Your task to perform on an android device: Open my contact list Image 0: 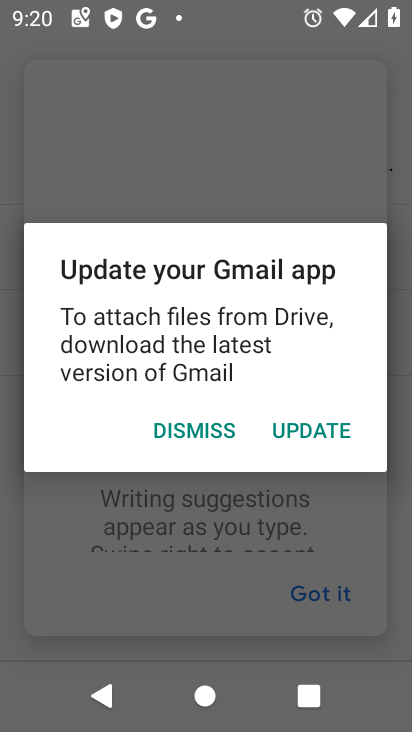
Step 0: press home button
Your task to perform on an android device: Open my contact list Image 1: 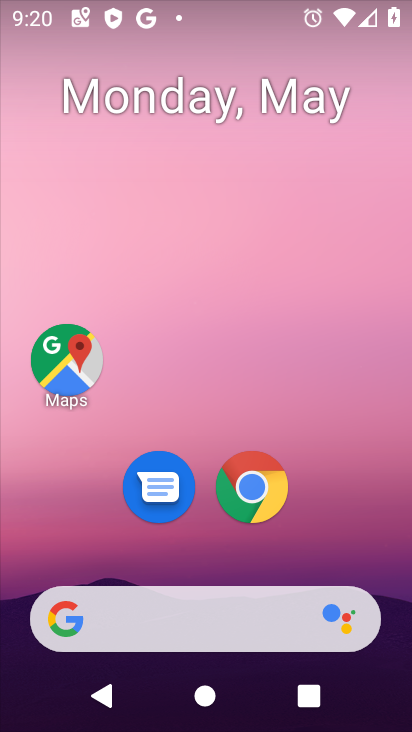
Step 1: drag from (183, 576) to (346, 57)
Your task to perform on an android device: Open my contact list Image 2: 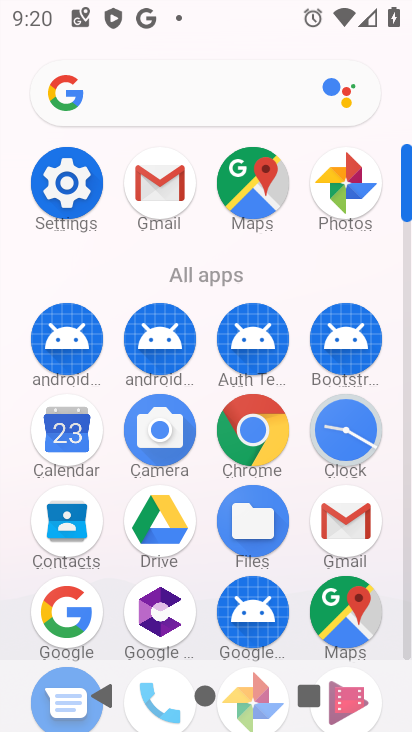
Step 2: click (41, 510)
Your task to perform on an android device: Open my contact list Image 3: 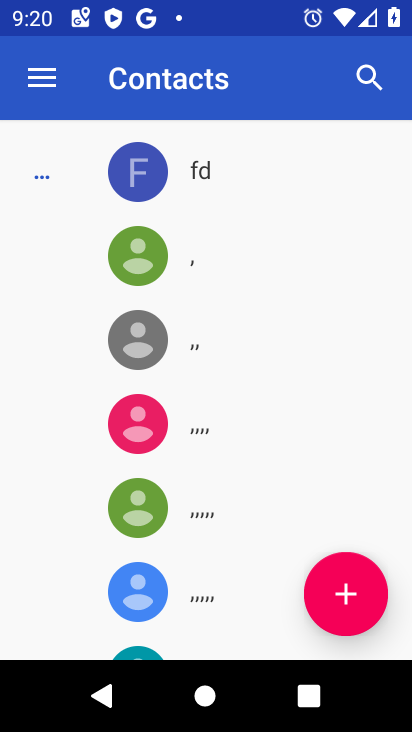
Step 3: task complete